Your task to perform on an android device: Open settings on Google Maps Image 0: 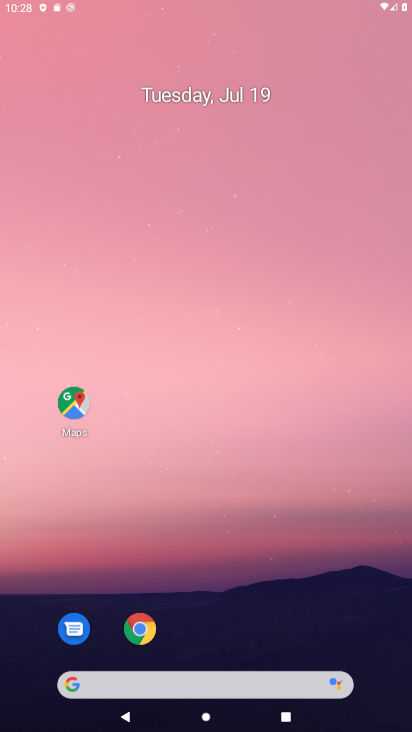
Step 0: click (256, 306)
Your task to perform on an android device: Open settings on Google Maps Image 1: 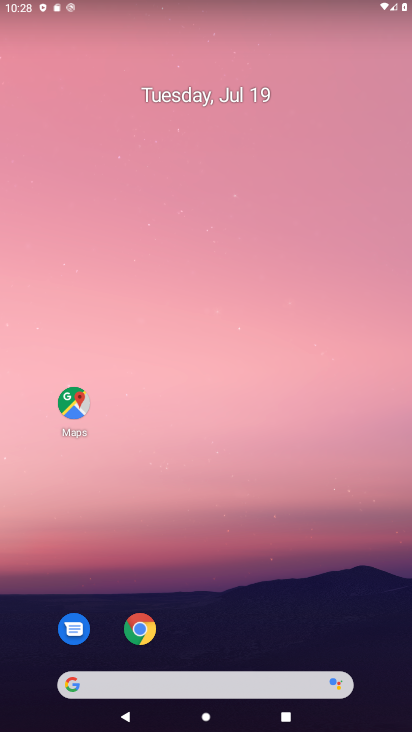
Step 1: drag from (272, 660) to (179, 177)
Your task to perform on an android device: Open settings on Google Maps Image 2: 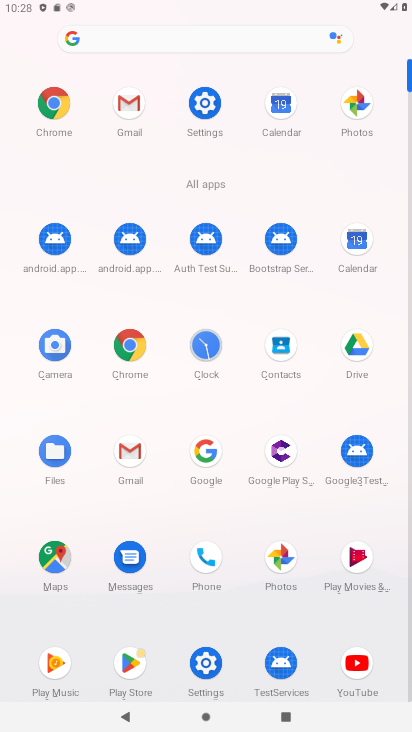
Step 2: click (57, 549)
Your task to perform on an android device: Open settings on Google Maps Image 3: 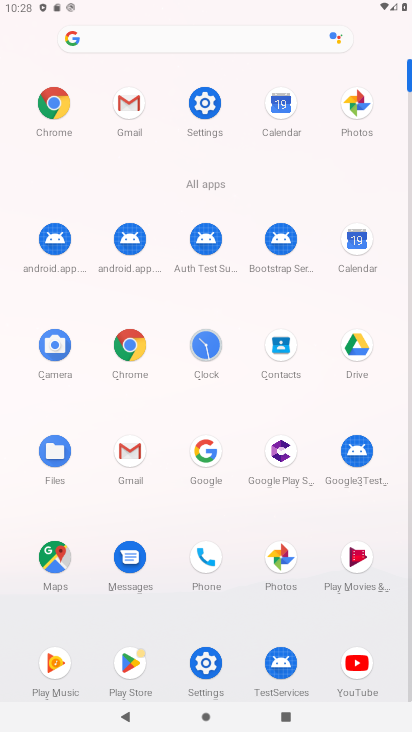
Step 3: click (46, 559)
Your task to perform on an android device: Open settings on Google Maps Image 4: 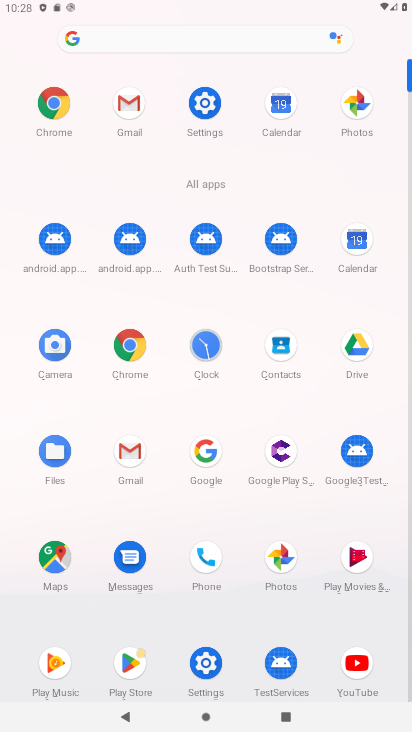
Step 4: click (46, 559)
Your task to perform on an android device: Open settings on Google Maps Image 5: 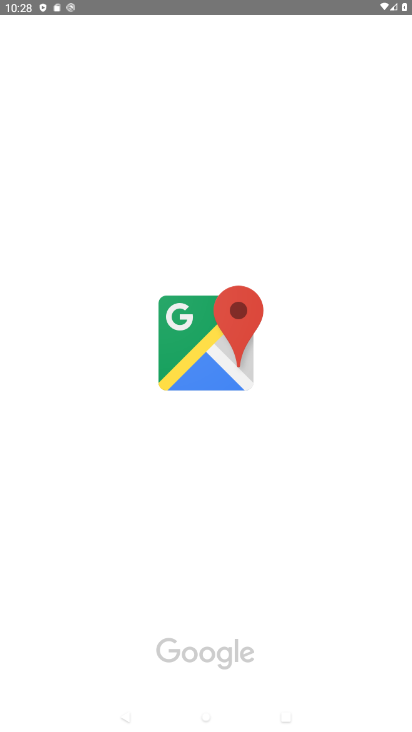
Step 5: click (202, 329)
Your task to perform on an android device: Open settings on Google Maps Image 6: 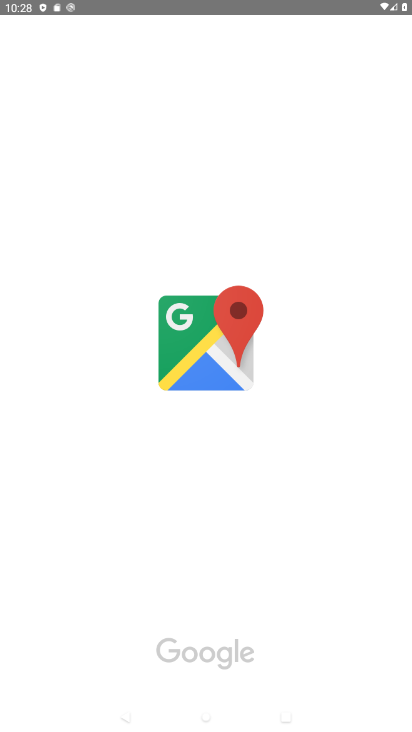
Step 6: click (204, 331)
Your task to perform on an android device: Open settings on Google Maps Image 7: 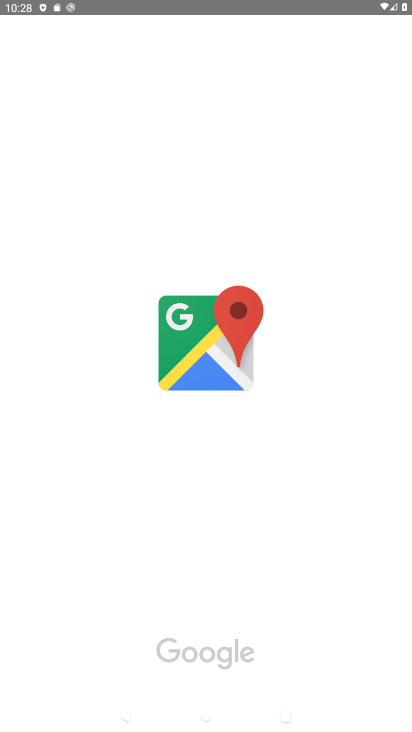
Step 7: click (207, 326)
Your task to perform on an android device: Open settings on Google Maps Image 8: 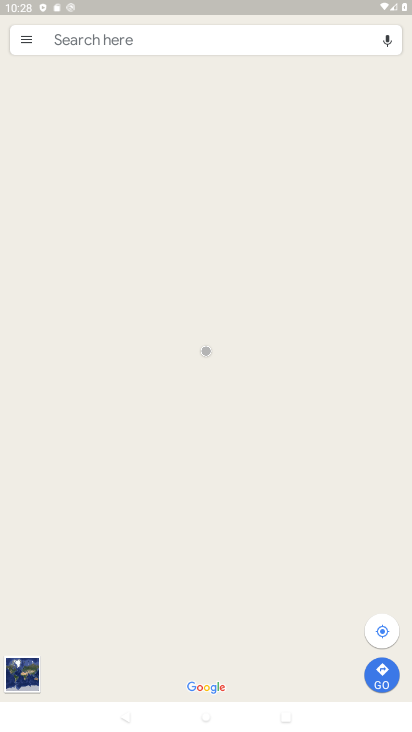
Step 8: click (21, 35)
Your task to perform on an android device: Open settings on Google Maps Image 9: 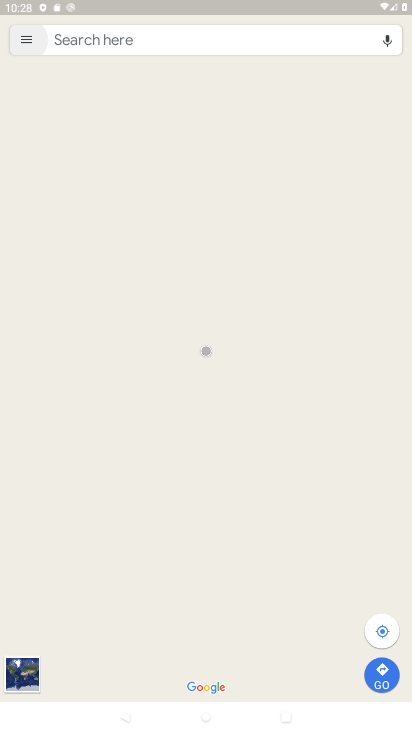
Step 9: click (21, 35)
Your task to perform on an android device: Open settings on Google Maps Image 10: 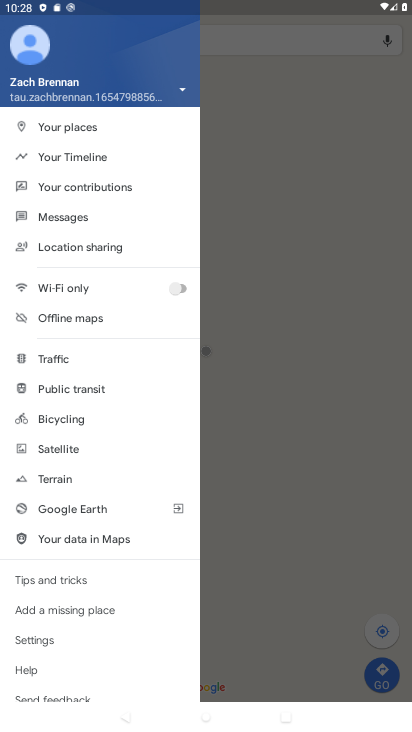
Step 10: click (80, 161)
Your task to perform on an android device: Open settings on Google Maps Image 11: 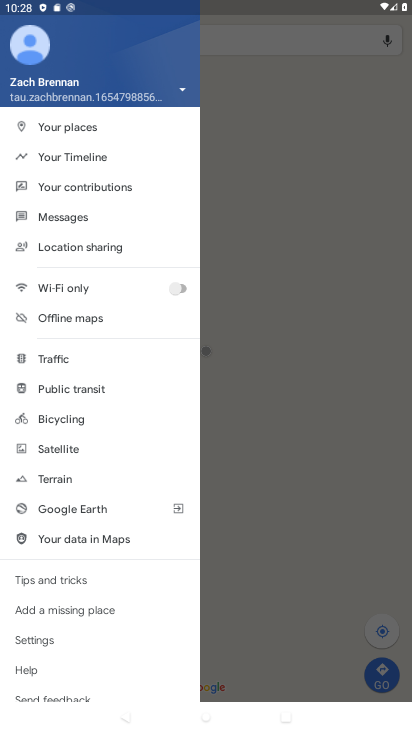
Step 11: click (79, 160)
Your task to perform on an android device: Open settings on Google Maps Image 12: 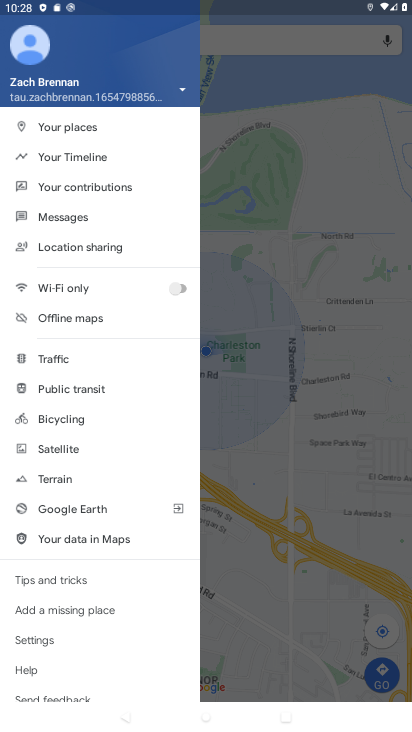
Step 12: click (31, 640)
Your task to perform on an android device: Open settings on Google Maps Image 13: 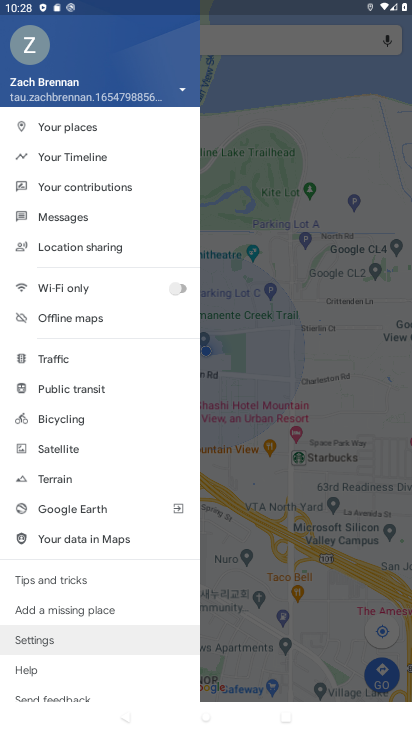
Step 13: click (34, 638)
Your task to perform on an android device: Open settings on Google Maps Image 14: 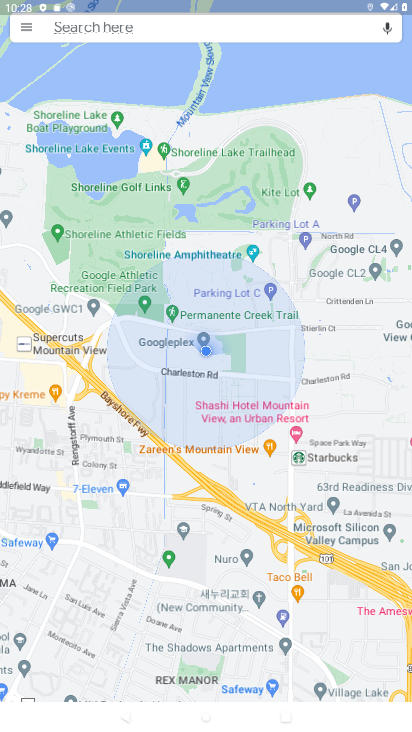
Step 14: click (38, 643)
Your task to perform on an android device: Open settings on Google Maps Image 15: 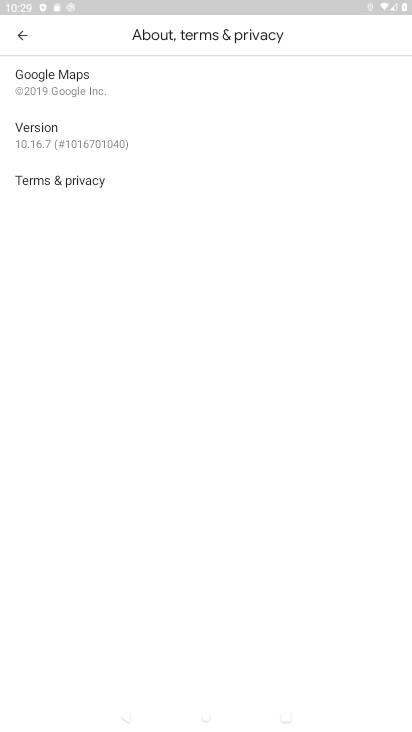
Step 15: task complete